Your task to perform on an android device: turn off picture-in-picture Image 0: 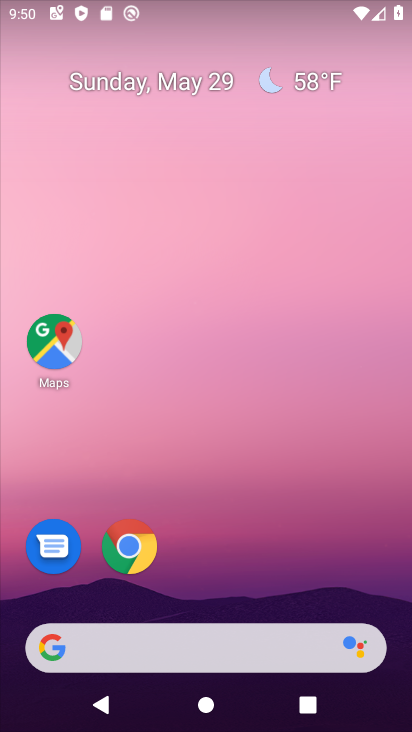
Step 0: click (139, 537)
Your task to perform on an android device: turn off picture-in-picture Image 1: 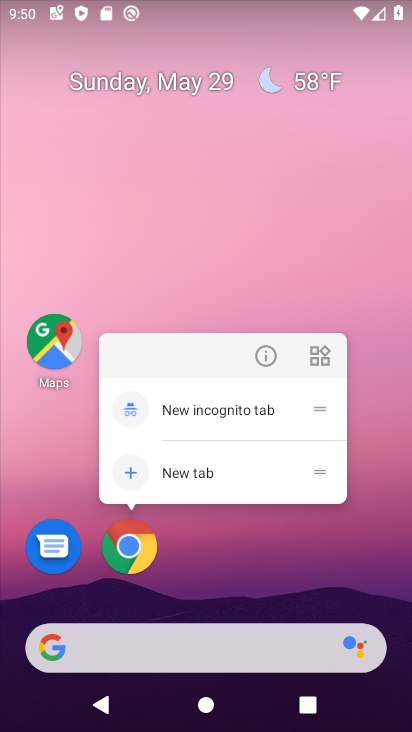
Step 1: click (266, 359)
Your task to perform on an android device: turn off picture-in-picture Image 2: 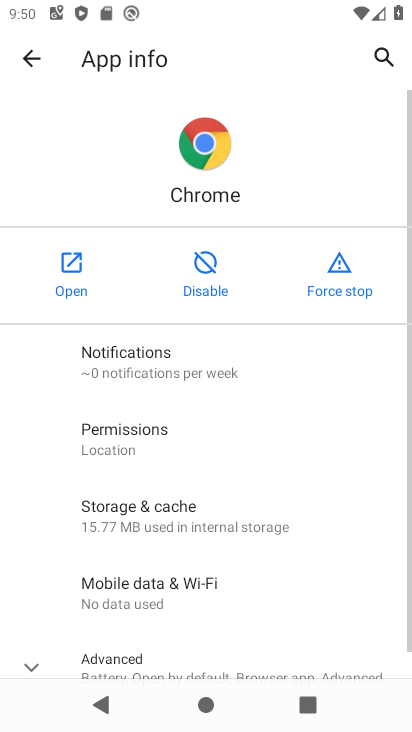
Step 2: drag from (249, 480) to (224, 229)
Your task to perform on an android device: turn off picture-in-picture Image 3: 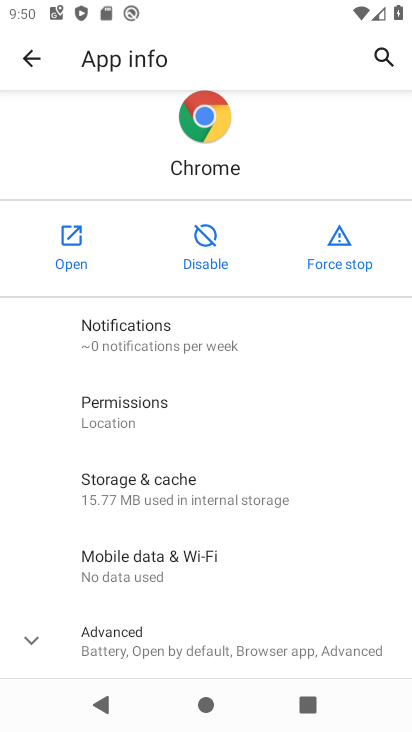
Step 3: click (181, 643)
Your task to perform on an android device: turn off picture-in-picture Image 4: 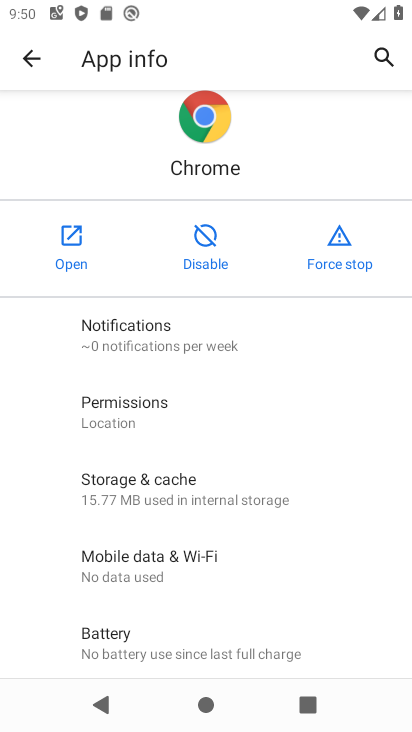
Step 4: drag from (222, 483) to (211, 310)
Your task to perform on an android device: turn off picture-in-picture Image 5: 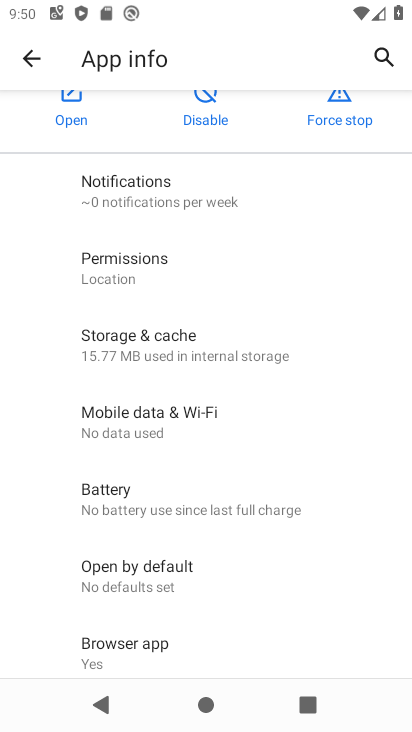
Step 5: drag from (242, 495) to (226, 340)
Your task to perform on an android device: turn off picture-in-picture Image 6: 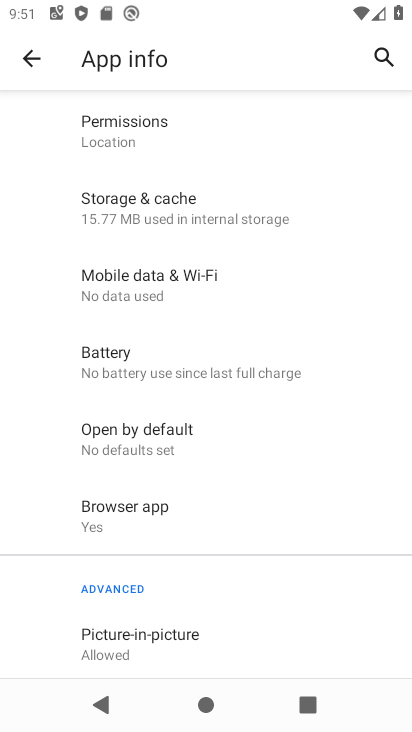
Step 6: click (180, 632)
Your task to perform on an android device: turn off picture-in-picture Image 7: 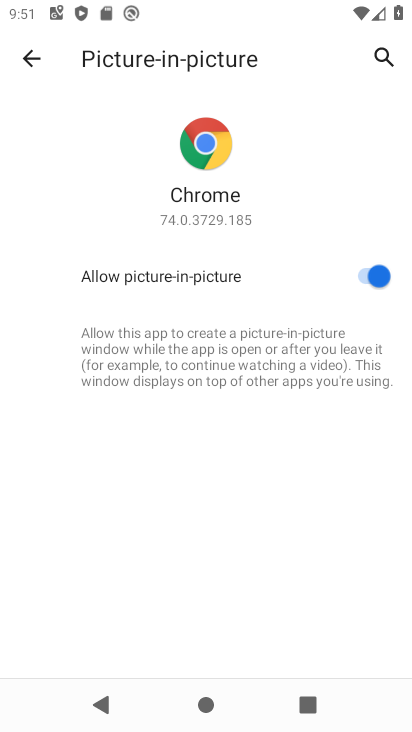
Step 7: click (367, 269)
Your task to perform on an android device: turn off picture-in-picture Image 8: 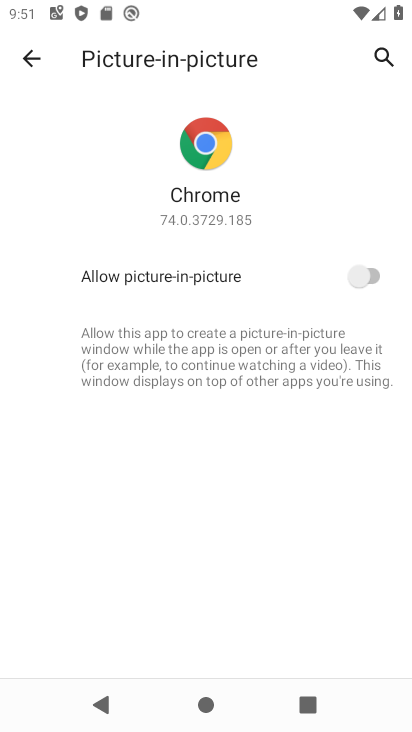
Step 8: task complete